Your task to perform on an android device: What is the recent news? Image 0: 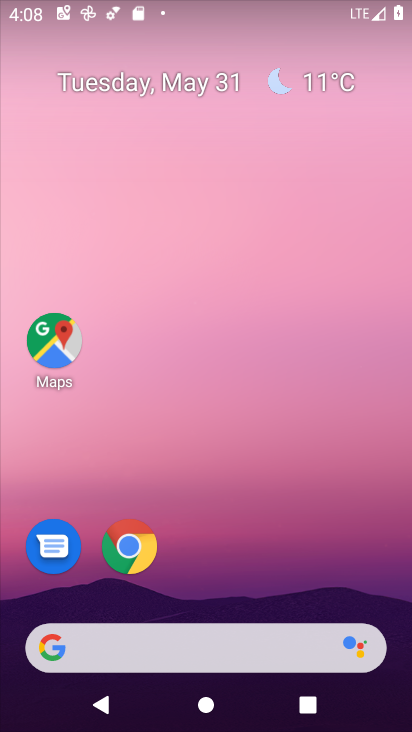
Step 0: press home button
Your task to perform on an android device: What is the recent news? Image 1: 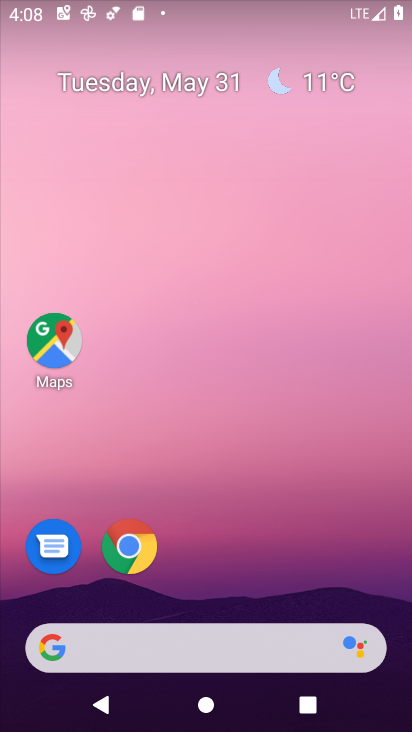
Step 1: drag from (258, 366) to (216, 77)
Your task to perform on an android device: What is the recent news? Image 2: 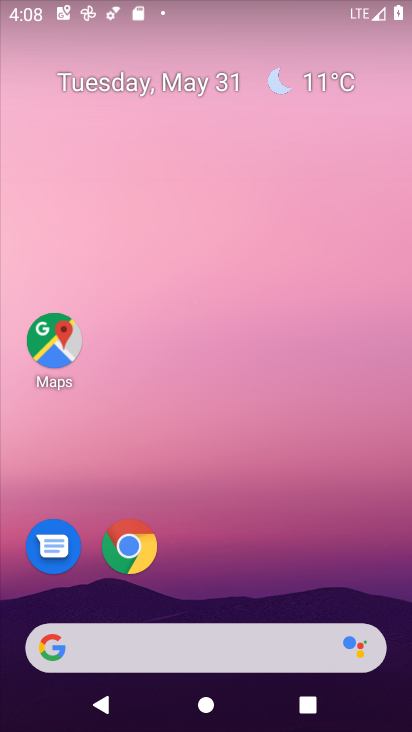
Step 2: drag from (268, 523) to (143, 34)
Your task to perform on an android device: What is the recent news? Image 3: 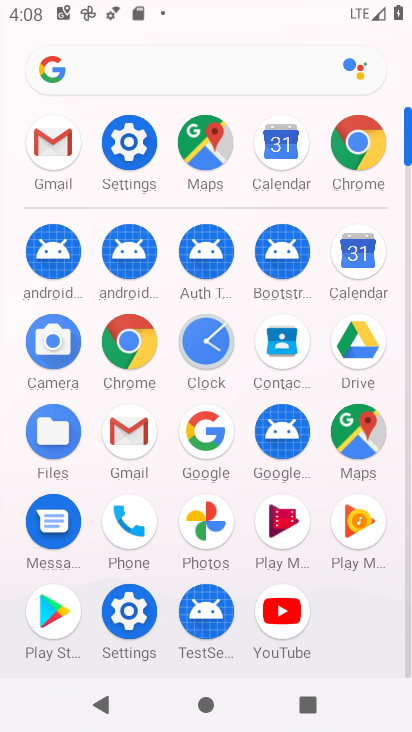
Step 3: click (199, 433)
Your task to perform on an android device: What is the recent news? Image 4: 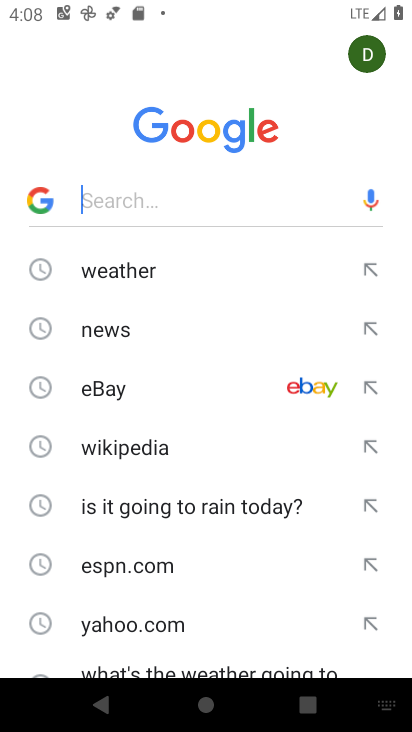
Step 4: drag from (201, 607) to (142, 164)
Your task to perform on an android device: What is the recent news? Image 5: 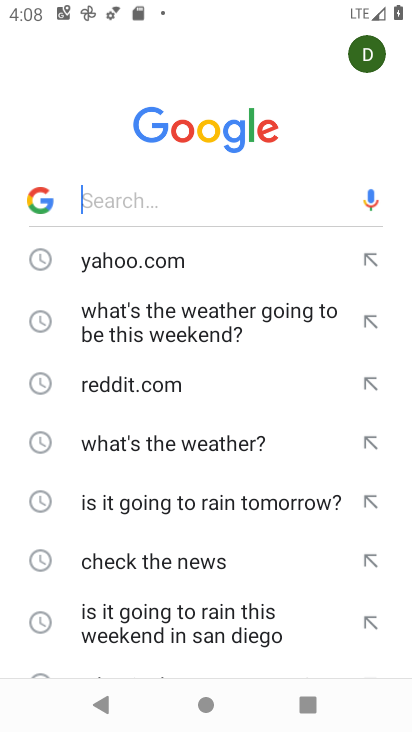
Step 5: drag from (213, 566) to (166, 186)
Your task to perform on an android device: What is the recent news? Image 6: 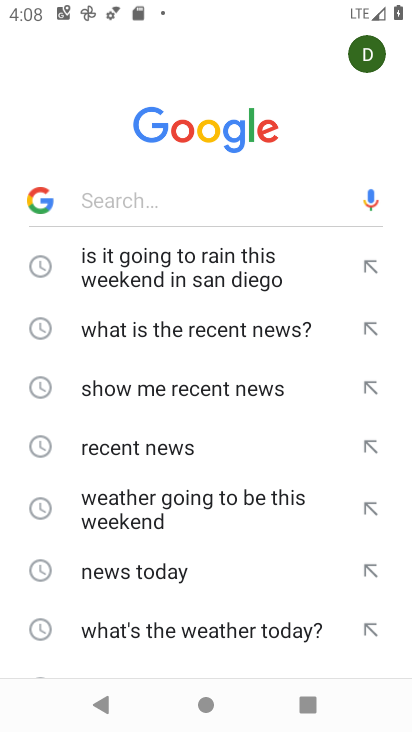
Step 6: click (184, 448)
Your task to perform on an android device: What is the recent news? Image 7: 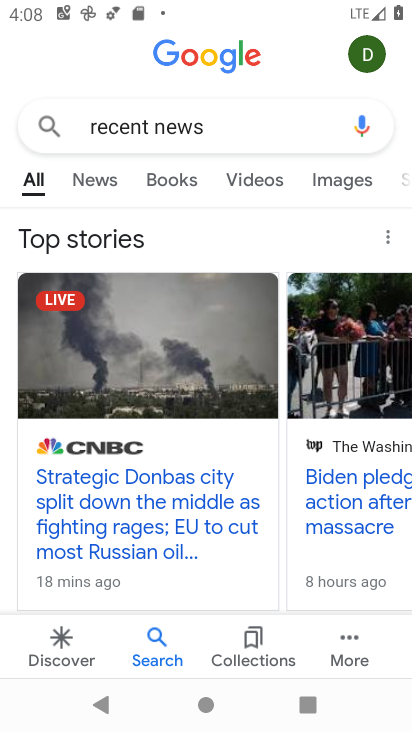
Step 7: task complete